Your task to perform on an android device: toggle notifications settings in the gmail app Image 0: 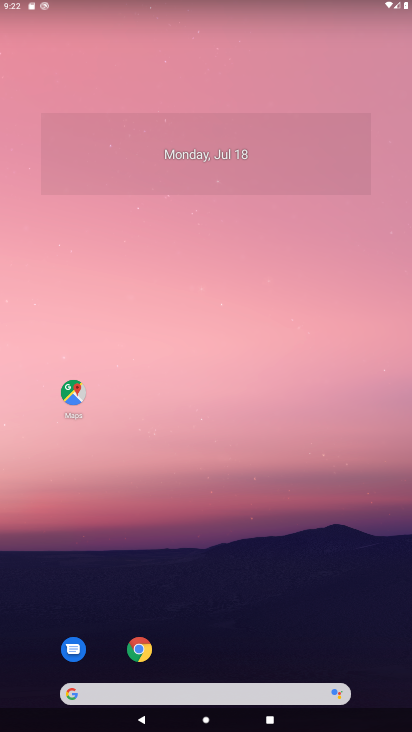
Step 0: drag from (284, 487) to (216, 27)
Your task to perform on an android device: toggle notifications settings in the gmail app Image 1: 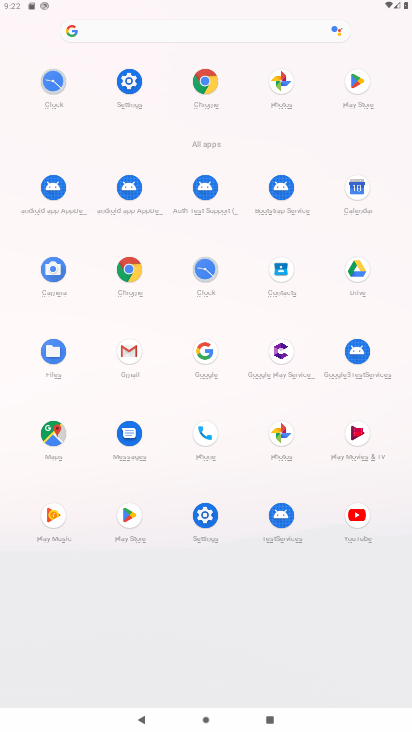
Step 1: click (137, 363)
Your task to perform on an android device: toggle notifications settings in the gmail app Image 2: 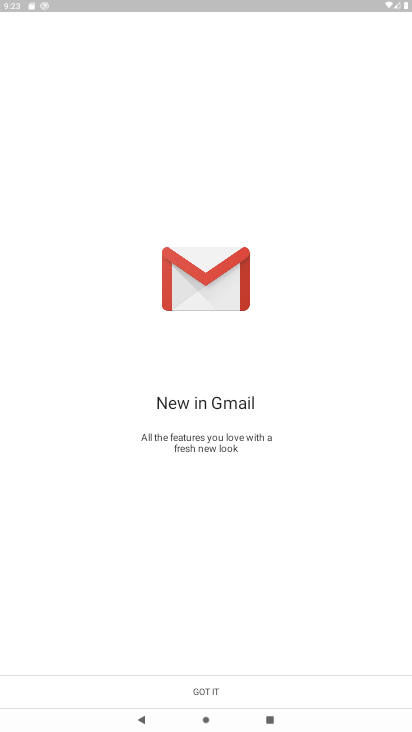
Step 2: click (205, 684)
Your task to perform on an android device: toggle notifications settings in the gmail app Image 3: 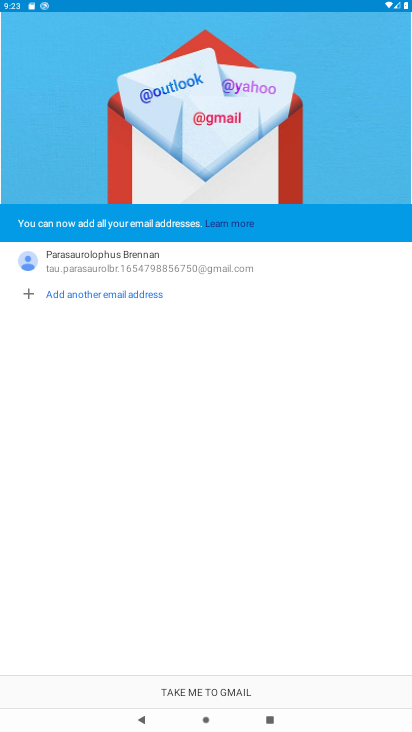
Step 3: click (205, 684)
Your task to perform on an android device: toggle notifications settings in the gmail app Image 4: 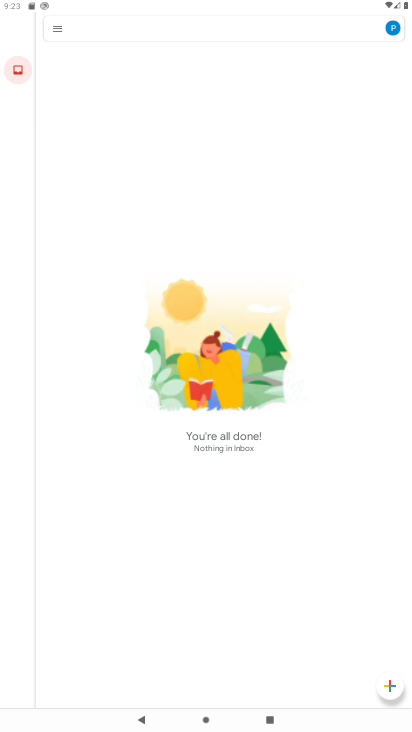
Step 4: click (50, 29)
Your task to perform on an android device: toggle notifications settings in the gmail app Image 5: 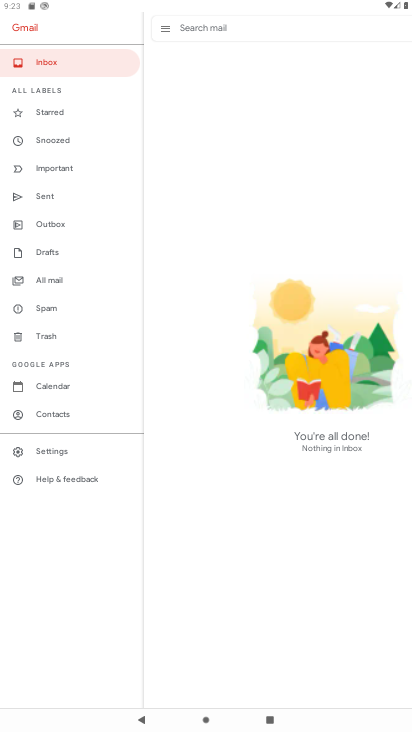
Step 5: click (51, 450)
Your task to perform on an android device: toggle notifications settings in the gmail app Image 6: 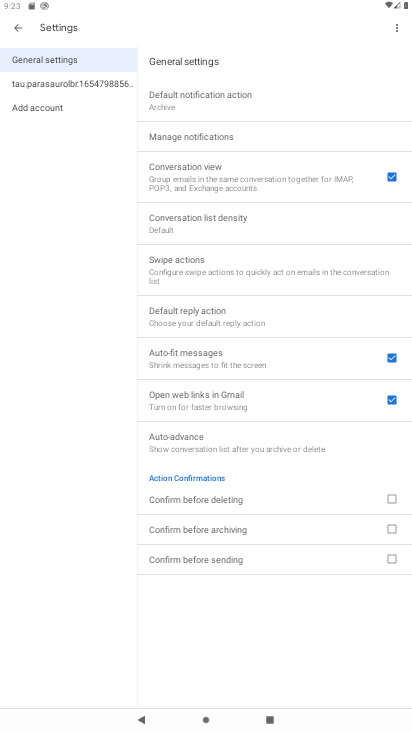
Step 6: click (70, 73)
Your task to perform on an android device: toggle notifications settings in the gmail app Image 7: 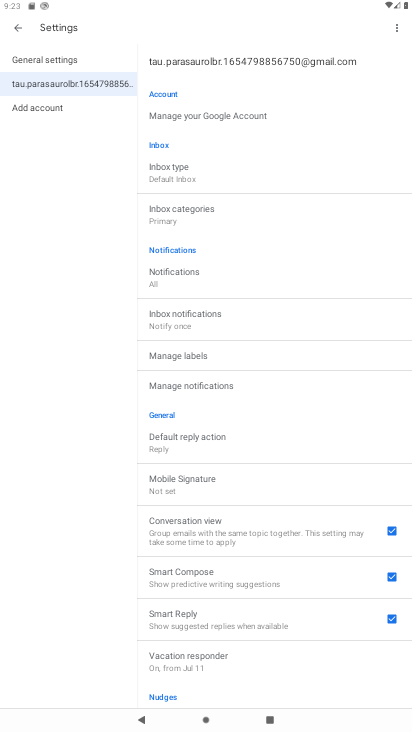
Step 7: click (184, 270)
Your task to perform on an android device: toggle notifications settings in the gmail app Image 8: 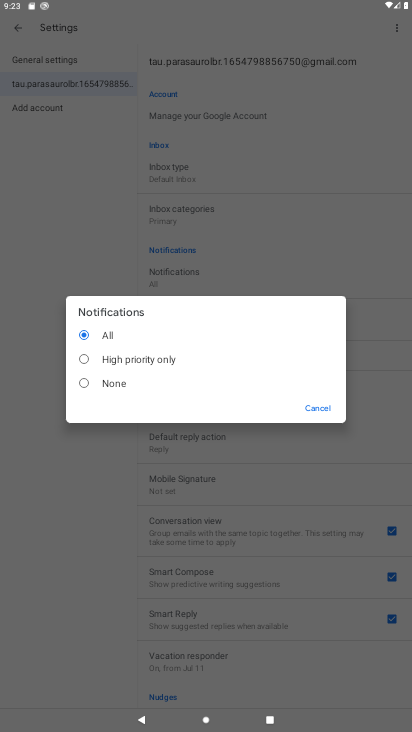
Step 8: click (89, 364)
Your task to perform on an android device: toggle notifications settings in the gmail app Image 9: 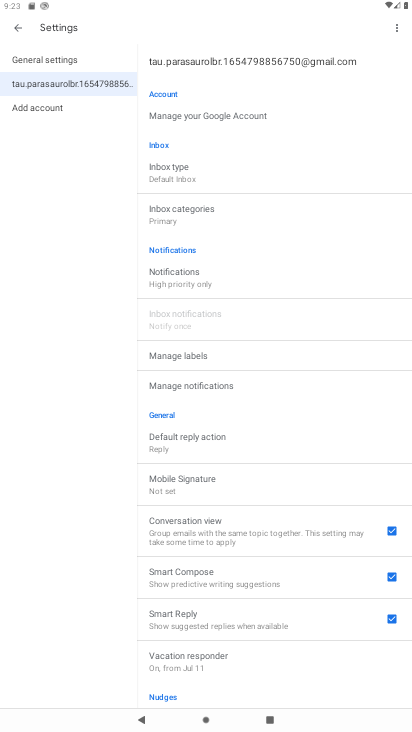
Step 9: task complete